Your task to perform on an android device: What is the news today? Image 0: 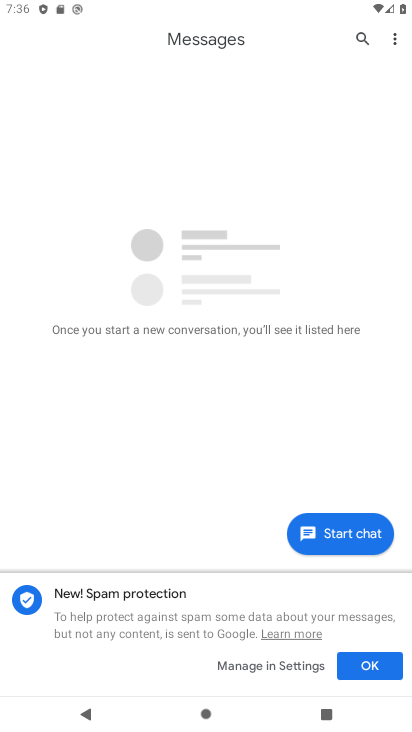
Step 0: drag from (400, 674) to (373, 168)
Your task to perform on an android device: What is the news today? Image 1: 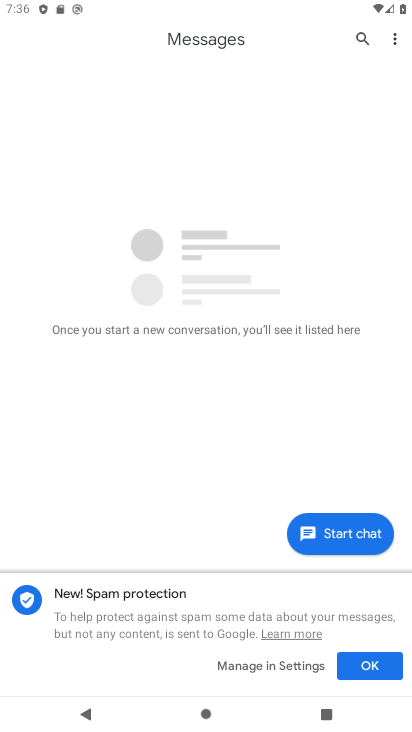
Step 1: task complete